Your task to perform on an android device: turn off location history Image 0: 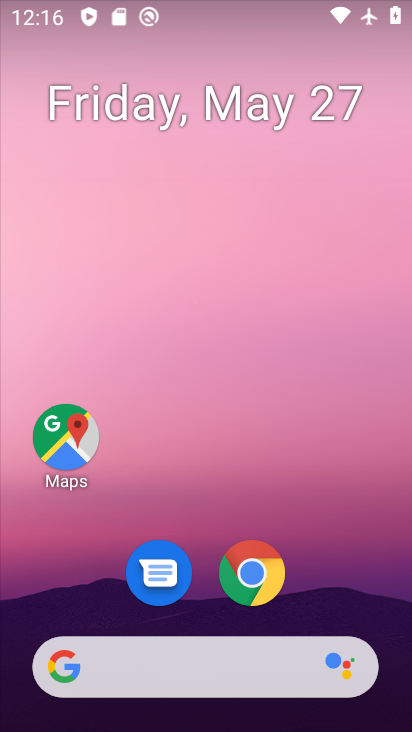
Step 0: drag from (368, 451) to (381, 121)
Your task to perform on an android device: turn off location history Image 1: 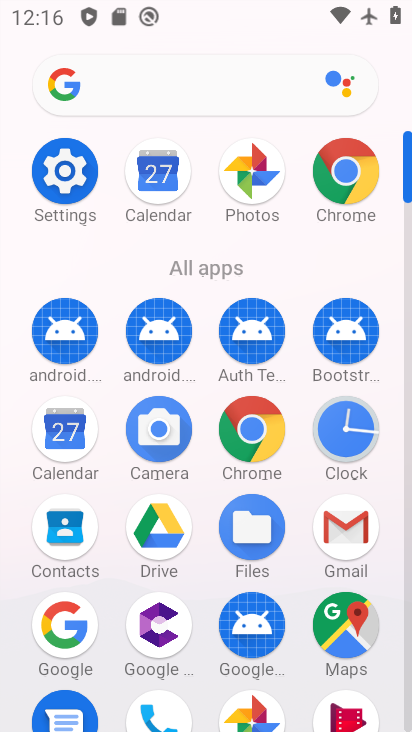
Step 1: click (71, 185)
Your task to perform on an android device: turn off location history Image 2: 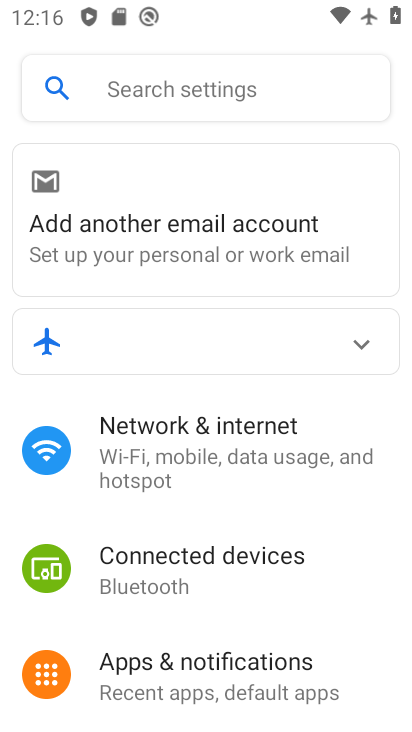
Step 2: drag from (210, 592) to (340, 150)
Your task to perform on an android device: turn off location history Image 3: 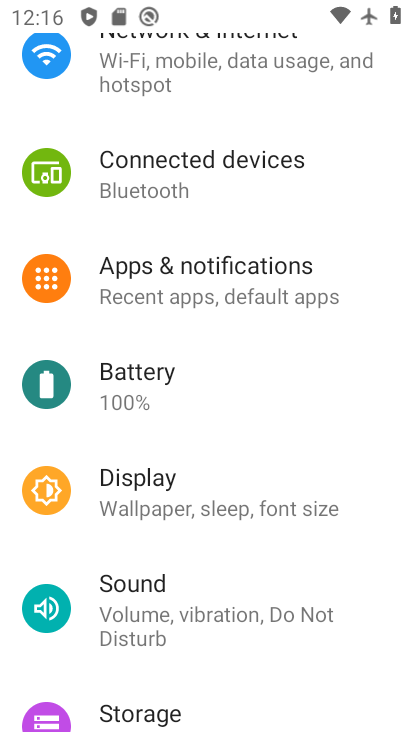
Step 3: drag from (272, 575) to (347, 226)
Your task to perform on an android device: turn off location history Image 4: 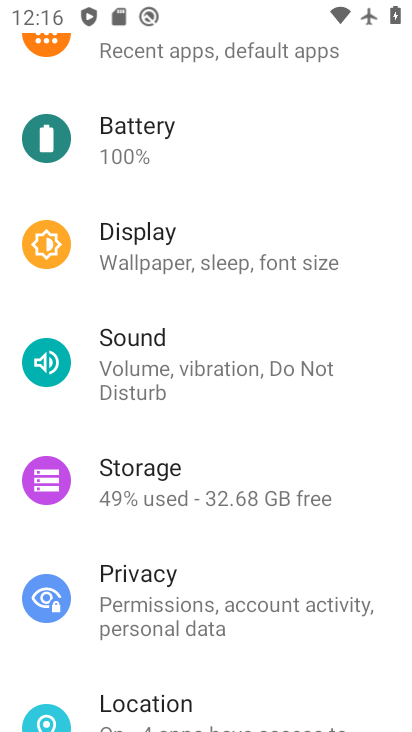
Step 4: click (185, 701)
Your task to perform on an android device: turn off location history Image 5: 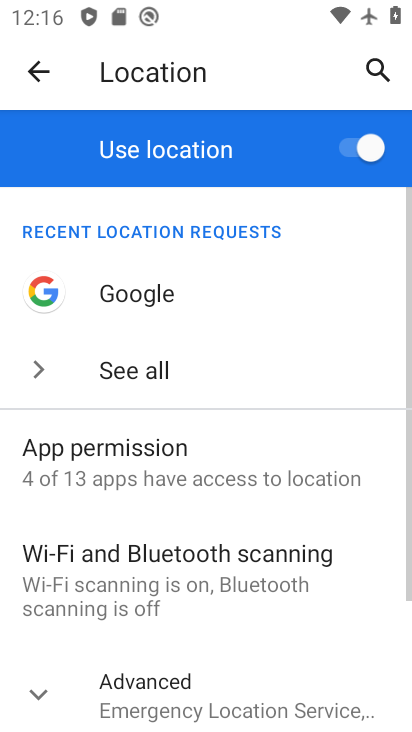
Step 5: drag from (194, 683) to (292, 285)
Your task to perform on an android device: turn off location history Image 6: 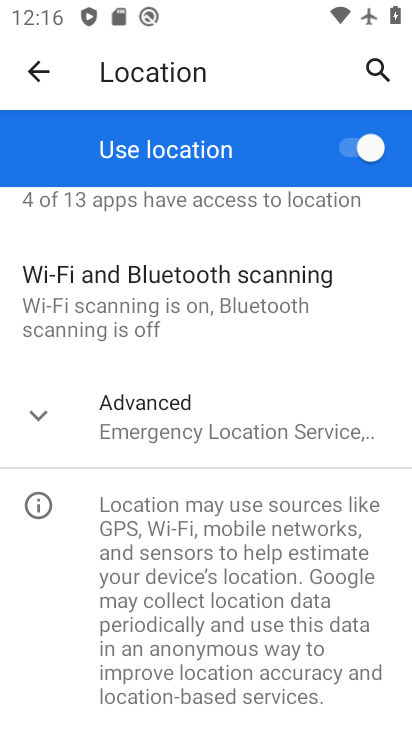
Step 6: click (221, 414)
Your task to perform on an android device: turn off location history Image 7: 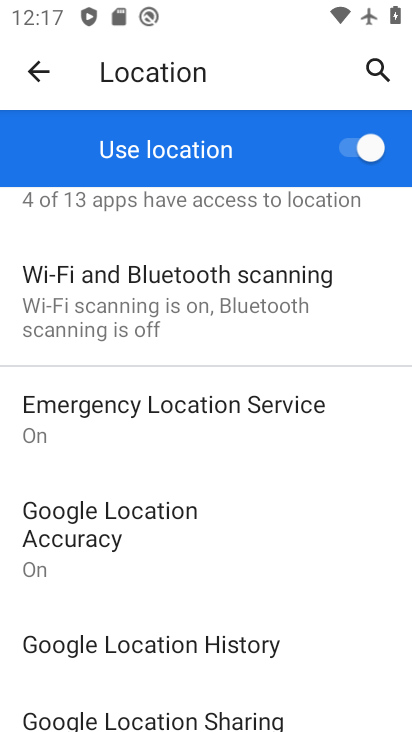
Step 7: drag from (273, 607) to (323, 333)
Your task to perform on an android device: turn off location history Image 8: 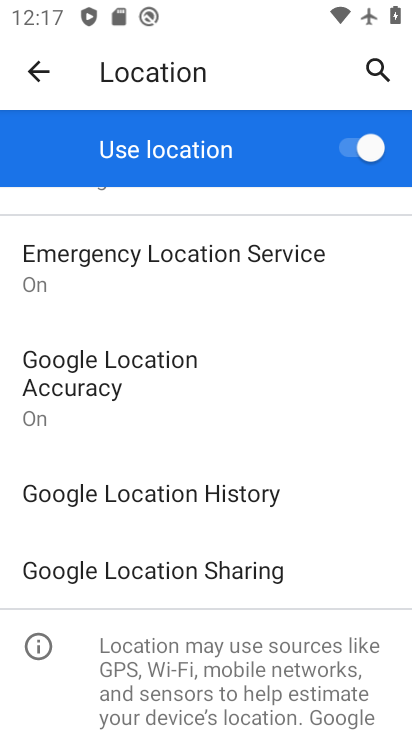
Step 8: click (237, 493)
Your task to perform on an android device: turn off location history Image 9: 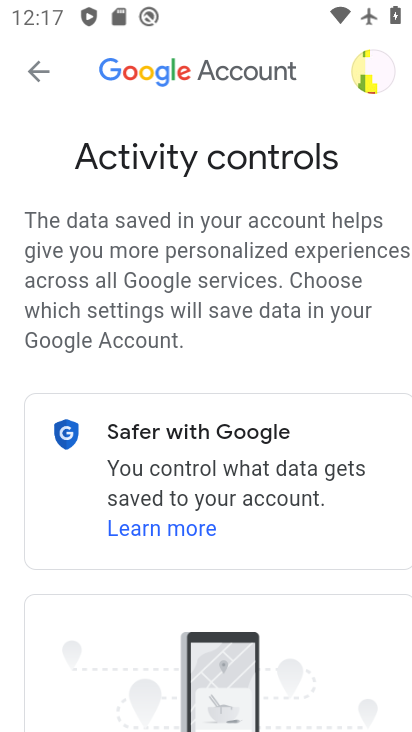
Step 9: task complete